Your task to perform on an android device: move a message to another label in the gmail app Image 0: 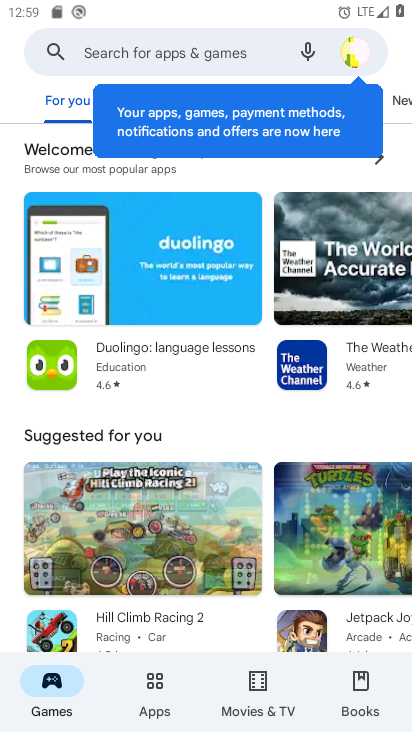
Step 0: press home button
Your task to perform on an android device: move a message to another label in the gmail app Image 1: 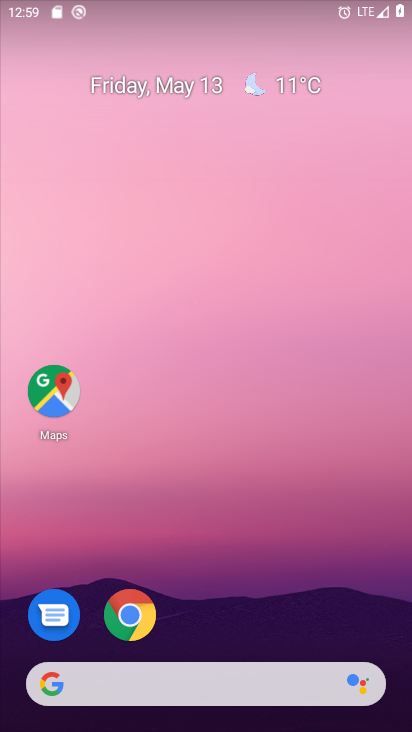
Step 1: drag from (227, 579) to (219, 83)
Your task to perform on an android device: move a message to another label in the gmail app Image 2: 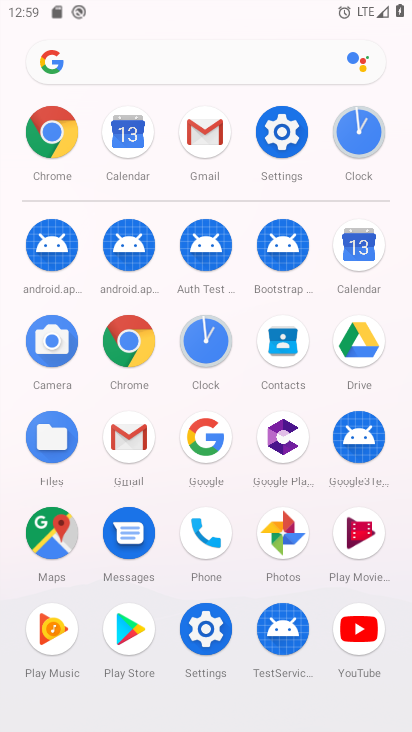
Step 2: click (202, 137)
Your task to perform on an android device: move a message to another label in the gmail app Image 3: 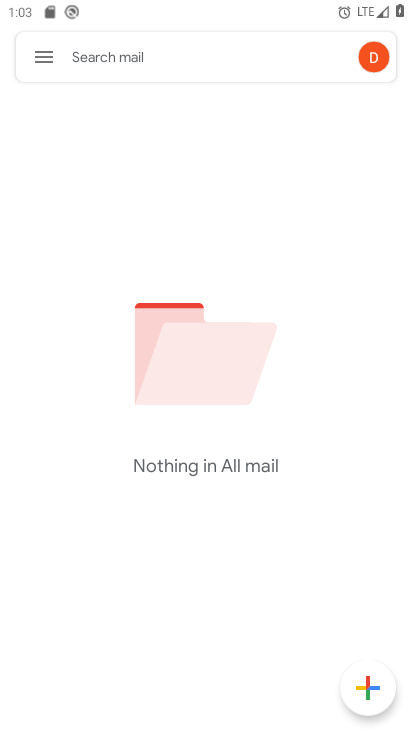
Step 3: task complete